Your task to perform on an android device: delete a single message in the gmail app Image 0: 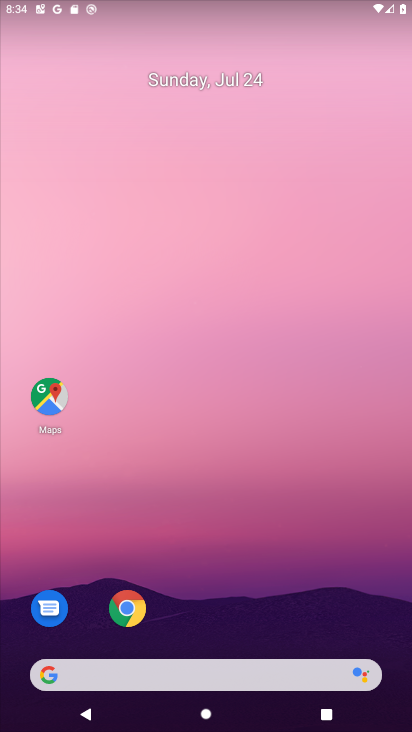
Step 0: drag from (184, 618) to (216, 209)
Your task to perform on an android device: delete a single message in the gmail app Image 1: 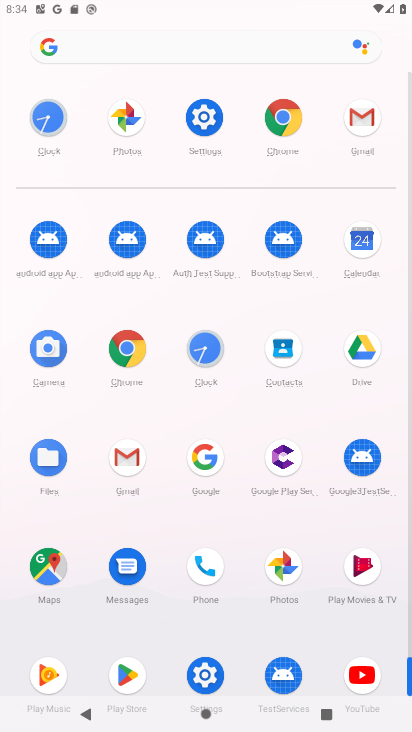
Step 1: click (378, 143)
Your task to perform on an android device: delete a single message in the gmail app Image 2: 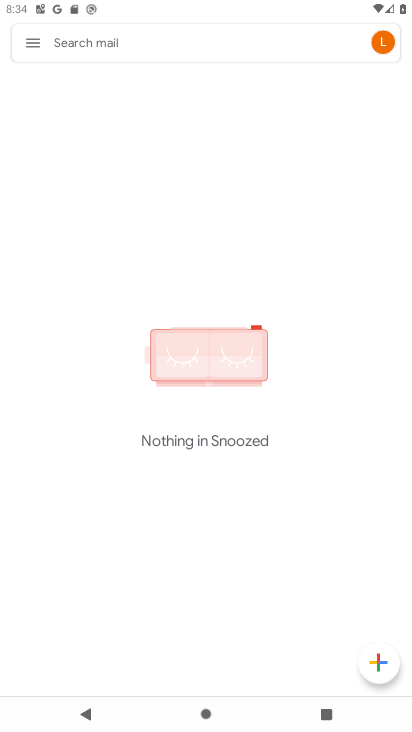
Step 2: click (29, 46)
Your task to perform on an android device: delete a single message in the gmail app Image 3: 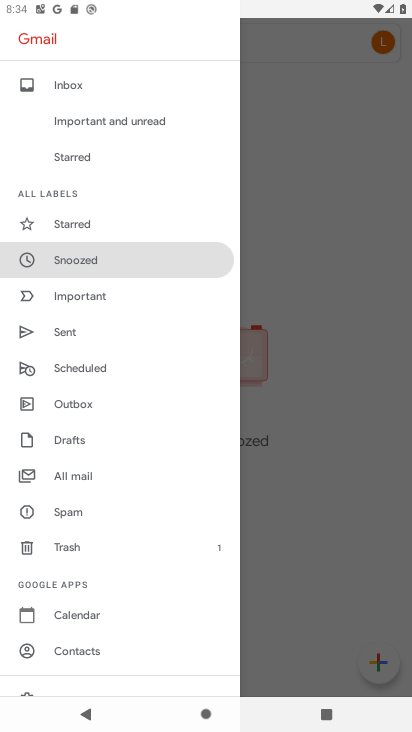
Step 3: click (147, 476)
Your task to perform on an android device: delete a single message in the gmail app Image 4: 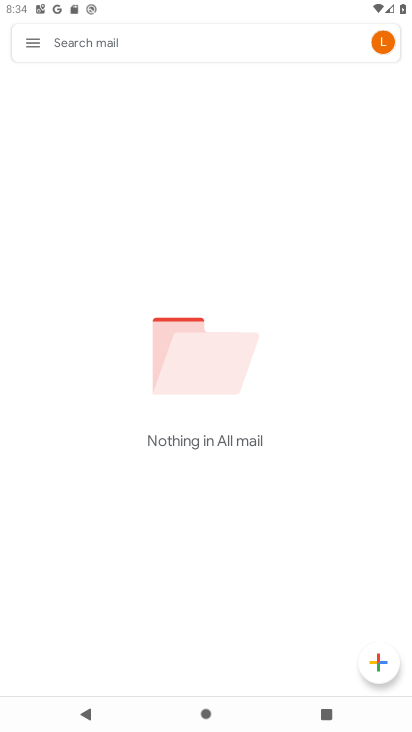
Step 4: task complete